Your task to perform on an android device: turn smart compose on in the gmail app Image 0: 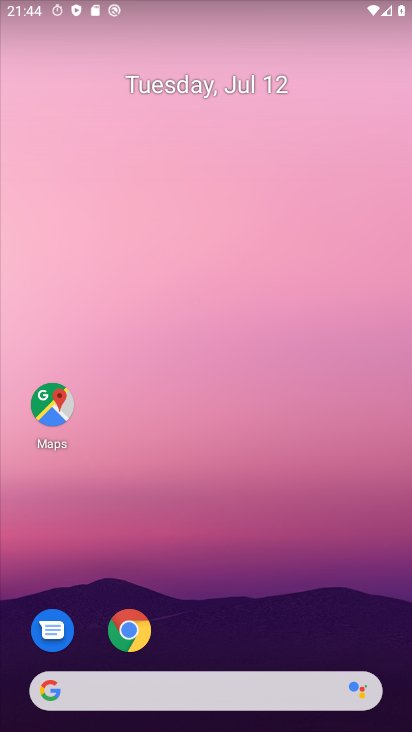
Step 0: drag from (236, 631) to (324, 76)
Your task to perform on an android device: turn smart compose on in the gmail app Image 1: 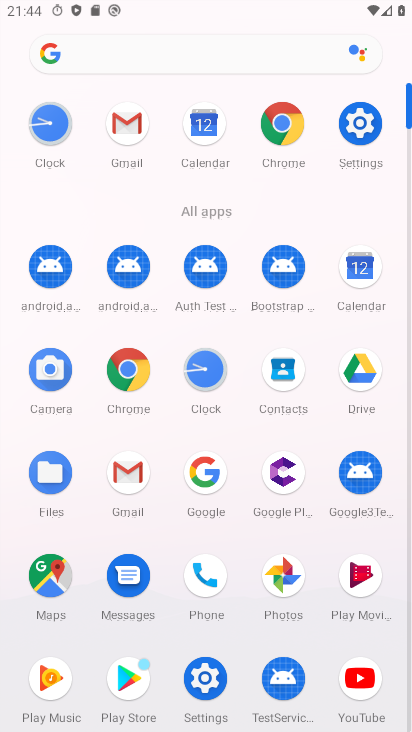
Step 1: click (115, 469)
Your task to perform on an android device: turn smart compose on in the gmail app Image 2: 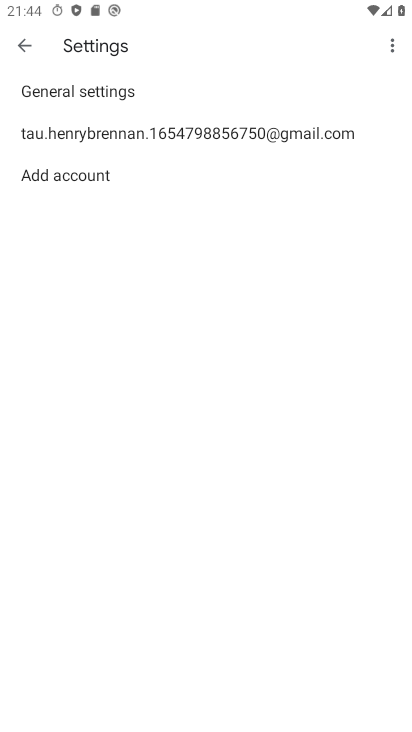
Step 2: click (151, 120)
Your task to perform on an android device: turn smart compose on in the gmail app Image 3: 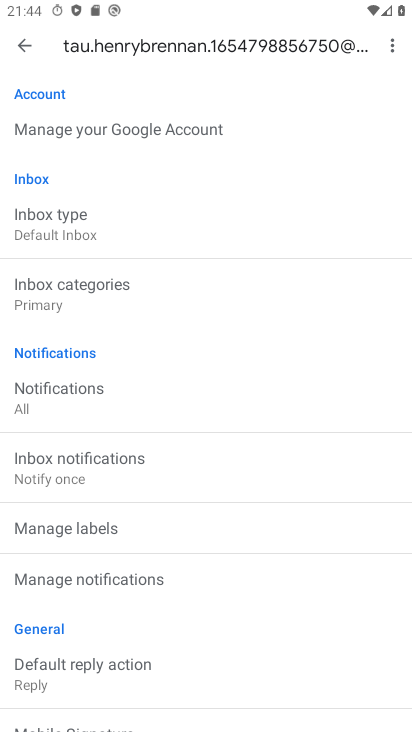
Step 3: task complete